Your task to perform on an android device: Toggle the flashlight Image 0: 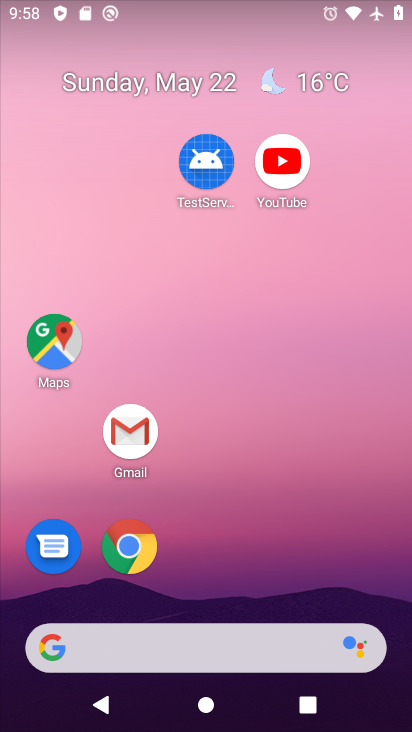
Step 0: drag from (192, 377) to (192, 4)
Your task to perform on an android device: Toggle the flashlight Image 1: 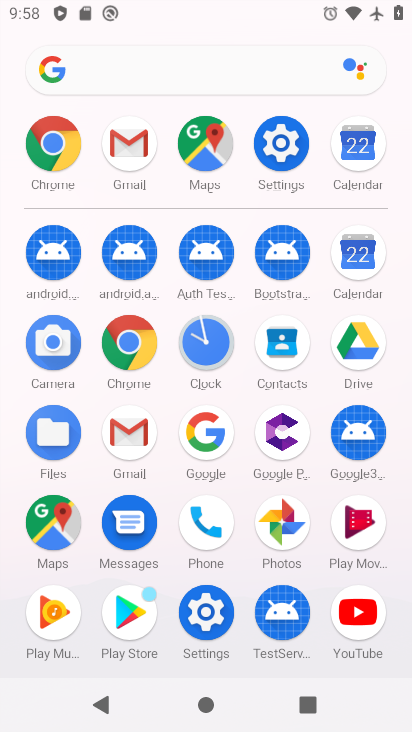
Step 1: task complete